Your task to perform on an android device: Open wifi settings Image 0: 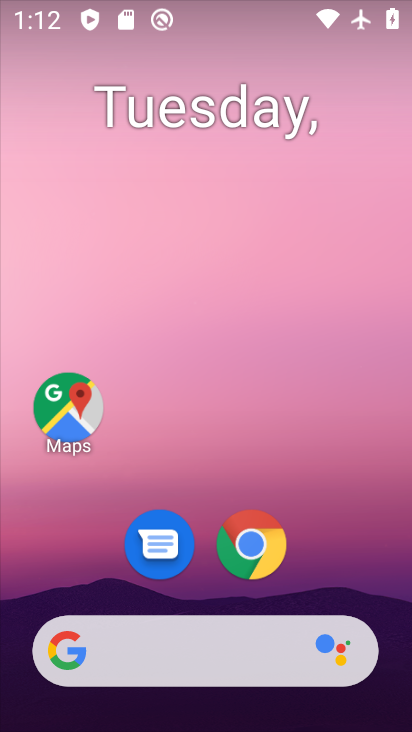
Step 0: drag from (394, 638) to (312, 68)
Your task to perform on an android device: Open wifi settings Image 1: 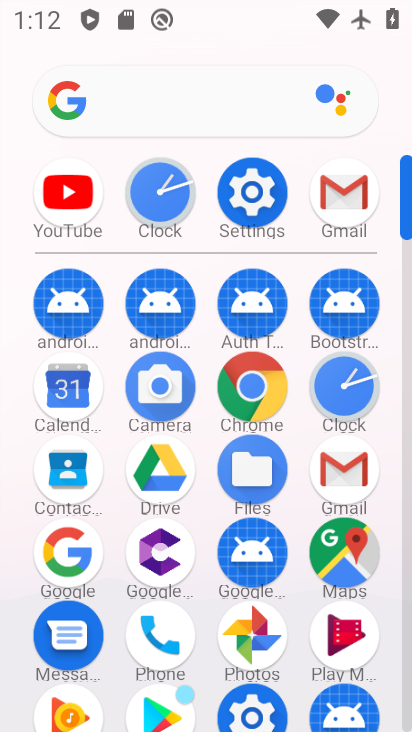
Step 1: click (408, 710)
Your task to perform on an android device: Open wifi settings Image 2: 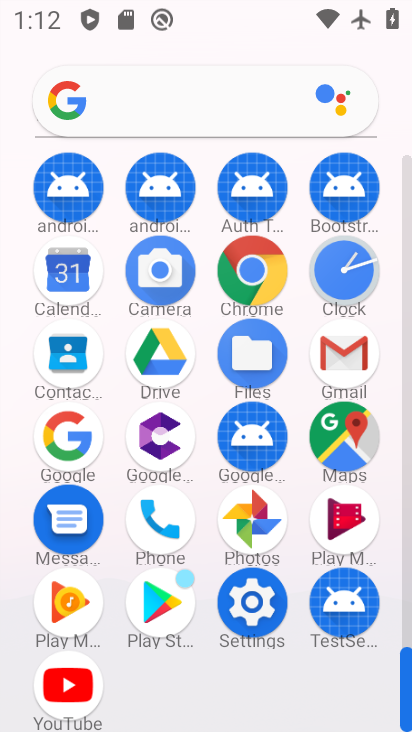
Step 2: click (250, 599)
Your task to perform on an android device: Open wifi settings Image 3: 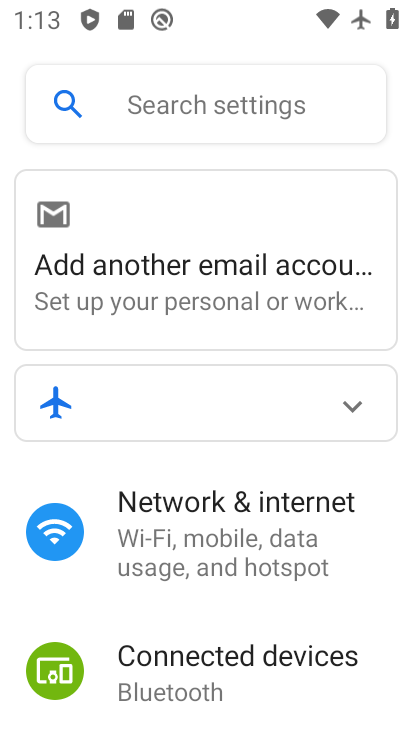
Step 3: drag from (210, 515) to (195, 294)
Your task to perform on an android device: Open wifi settings Image 4: 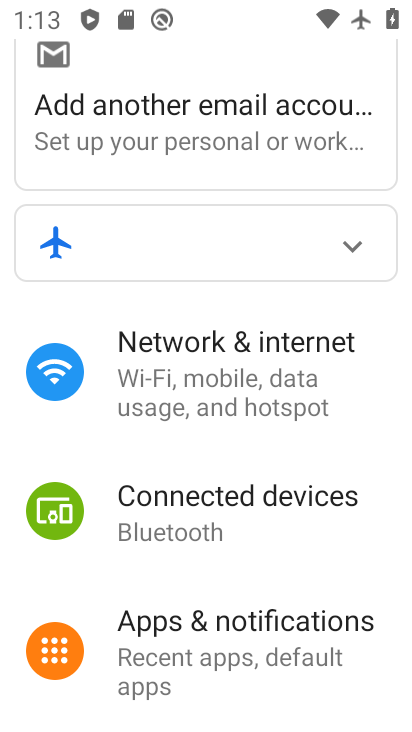
Step 4: click (204, 364)
Your task to perform on an android device: Open wifi settings Image 5: 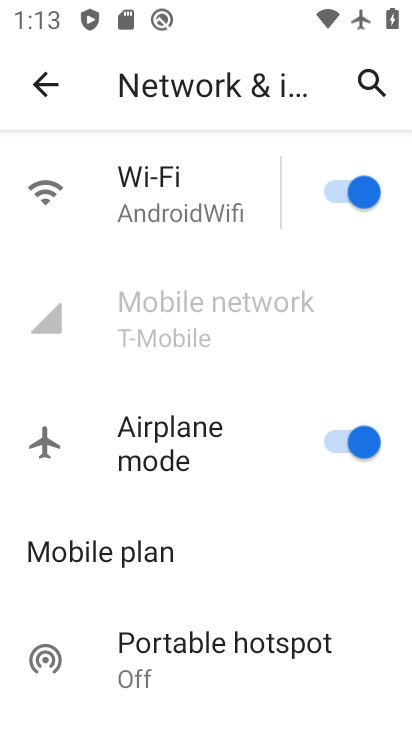
Step 5: click (120, 191)
Your task to perform on an android device: Open wifi settings Image 6: 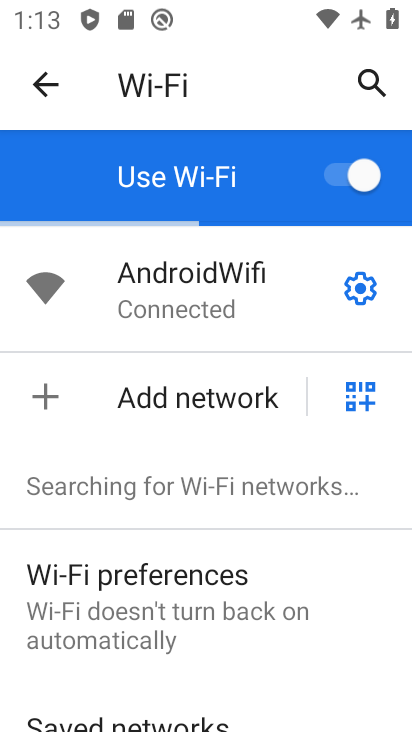
Step 6: drag from (285, 656) to (294, 297)
Your task to perform on an android device: Open wifi settings Image 7: 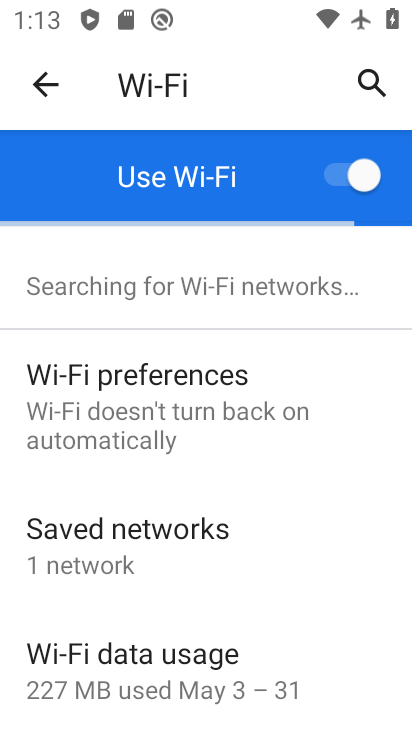
Step 7: drag from (315, 590) to (305, 349)
Your task to perform on an android device: Open wifi settings Image 8: 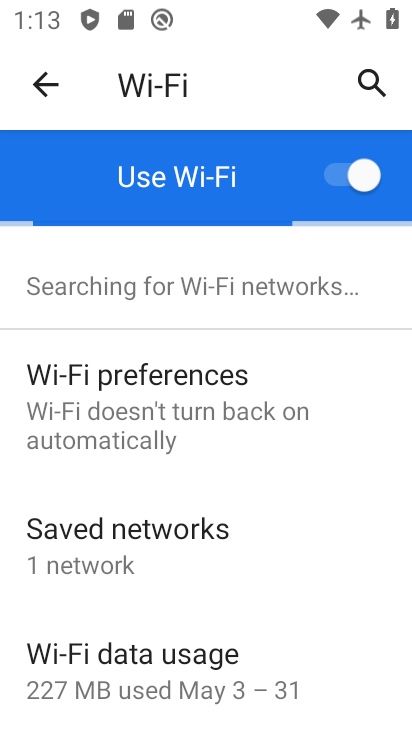
Step 8: drag from (305, 349) to (285, 653)
Your task to perform on an android device: Open wifi settings Image 9: 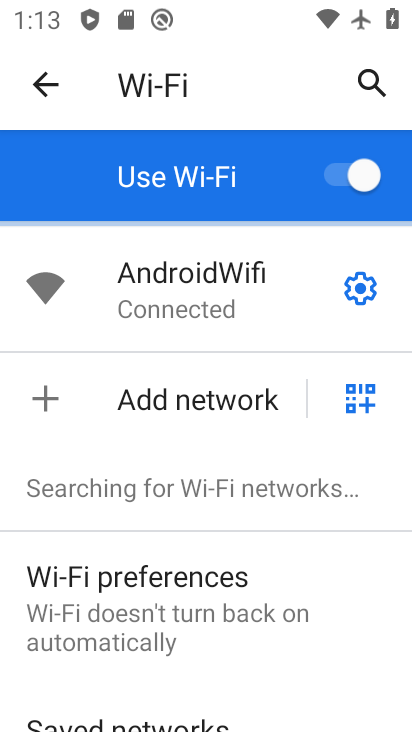
Step 9: click (359, 286)
Your task to perform on an android device: Open wifi settings Image 10: 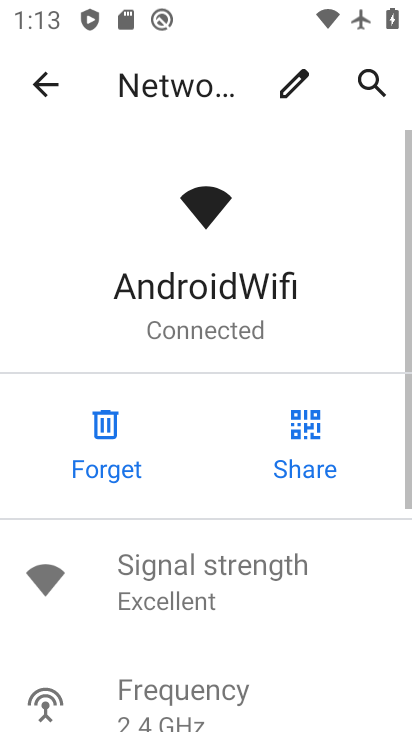
Step 10: drag from (255, 633) to (245, 300)
Your task to perform on an android device: Open wifi settings Image 11: 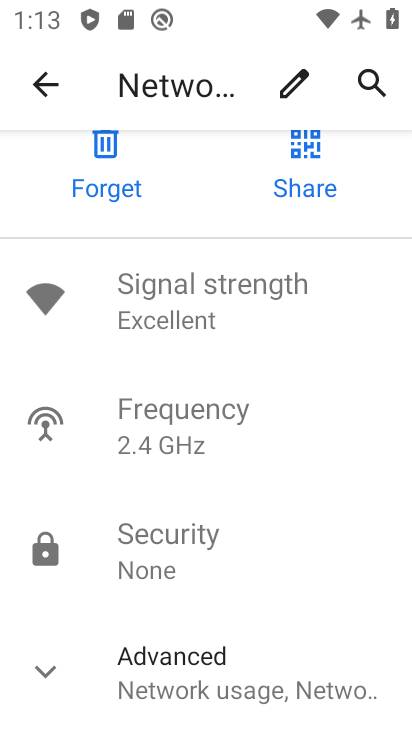
Step 11: click (57, 672)
Your task to perform on an android device: Open wifi settings Image 12: 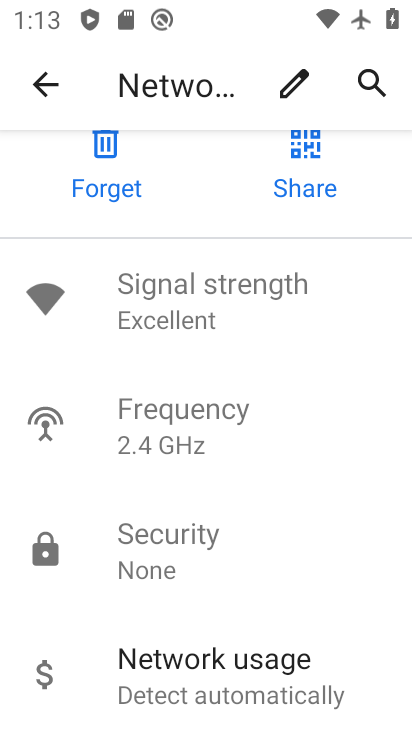
Step 12: task complete